Your task to perform on an android device: Search for Italian restaurants on Maps Image 0: 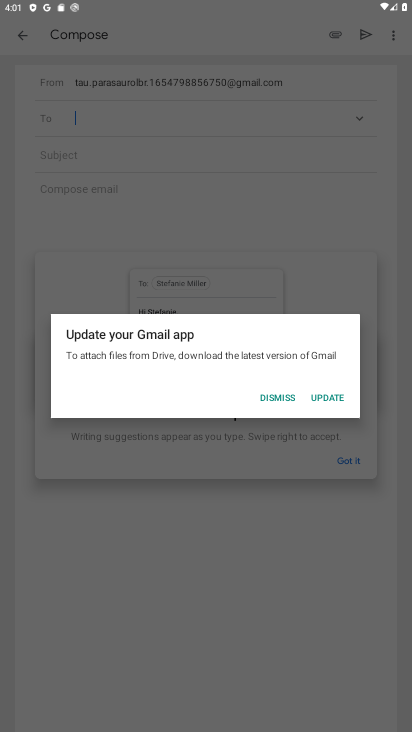
Step 0: press home button
Your task to perform on an android device: Search for Italian restaurants on Maps Image 1: 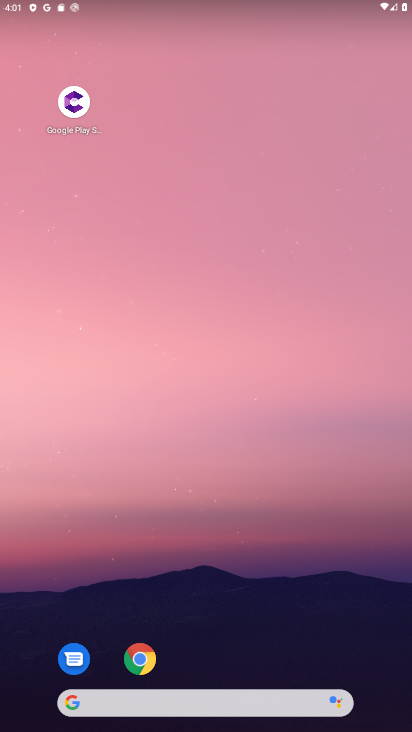
Step 1: drag from (369, 663) to (348, 76)
Your task to perform on an android device: Search for Italian restaurants on Maps Image 2: 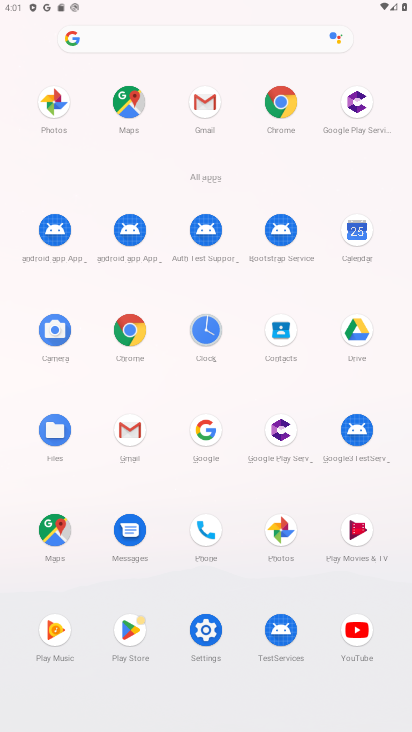
Step 2: click (53, 531)
Your task to perform on an android device: Search for Italian restaurants on Maps Image 3: 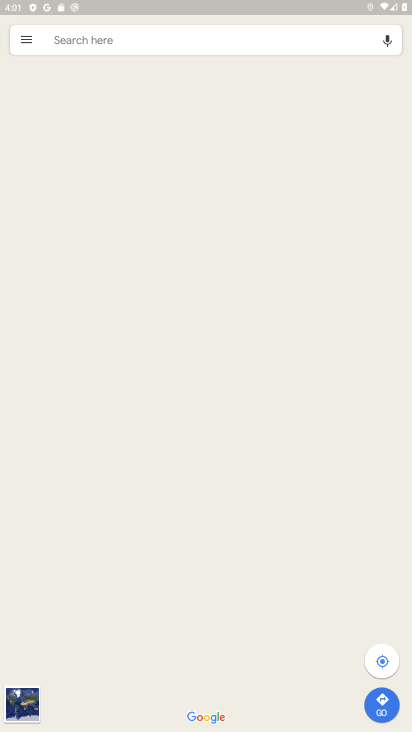
Step 3: click (117, 42)
Your task to perform on an android device: Search for Italian restaurants on Maps Image 4: 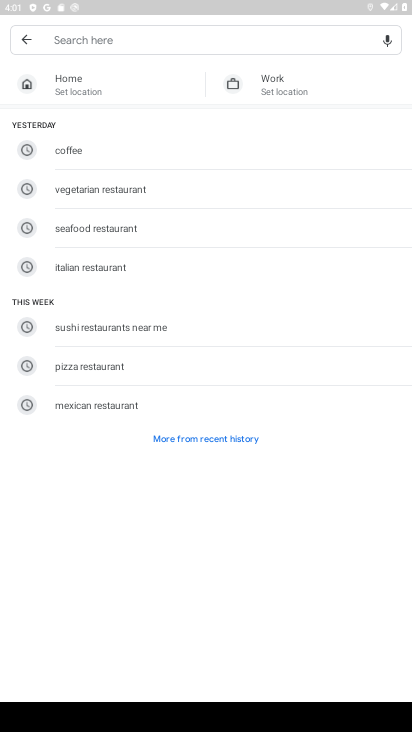
Step 4: type "italian restaurants"
Your task to perform on an android device: Search for Italian restaurants on Maps Image 5: 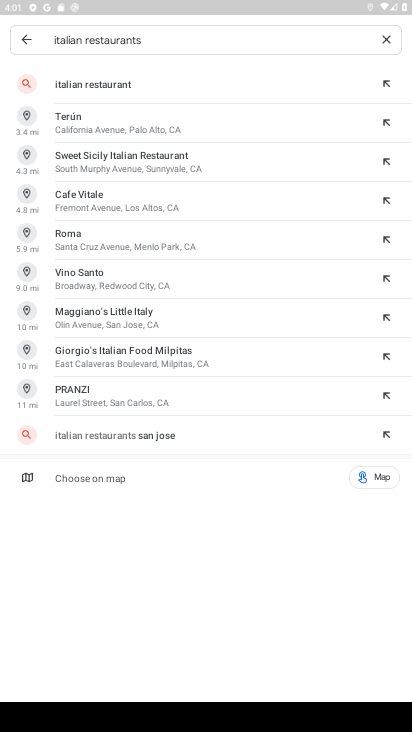
Step 5: click (97, 85)
Your task to perform on an android device: Search for Italian restaurants on Maps Image 6: 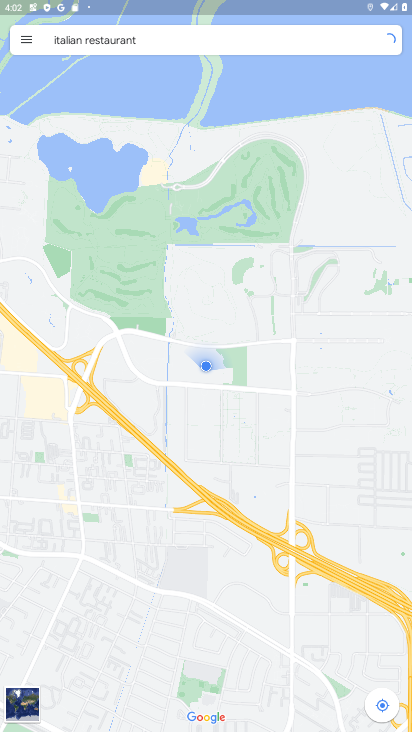
Step 6: click (241, 198)
Your task to perform on an android device: Search for Italian restaurants on Maps Image 7: 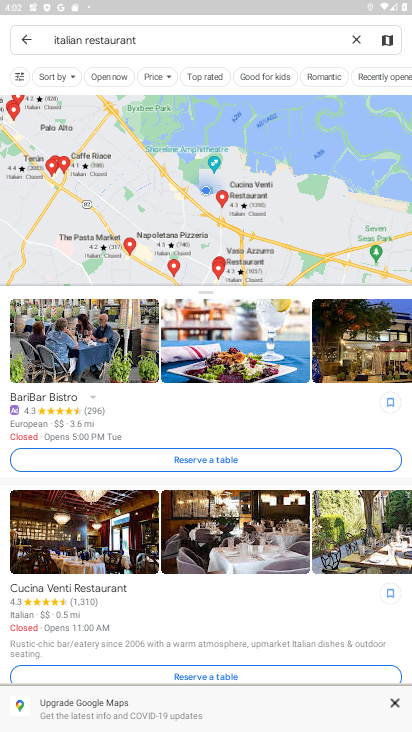
Step 7: task complete